Your task to perform on an android device: Open maps Image 0: 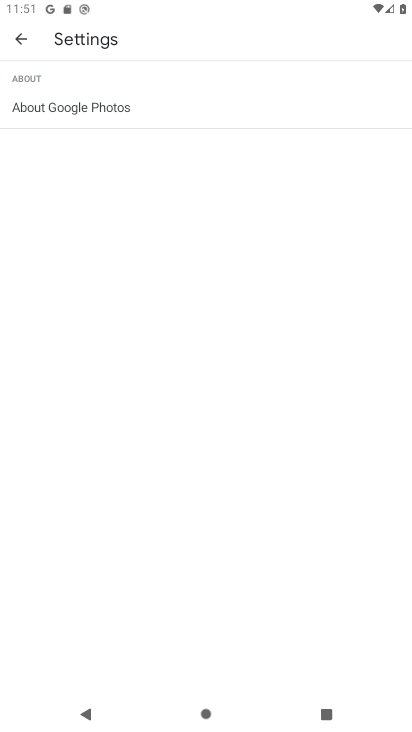
Step 0: press home button
Your task to perform on an android device: Open maps Image 1: 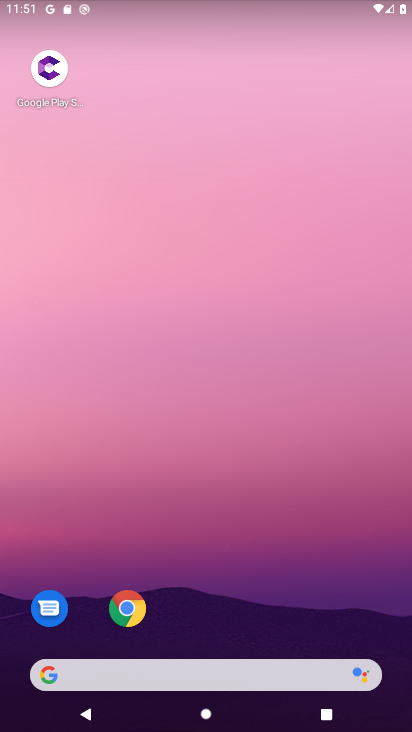
Step 1: drag from (205, 500) to (109, 0)
Your task to perform on an android device: Open maps Image 2: 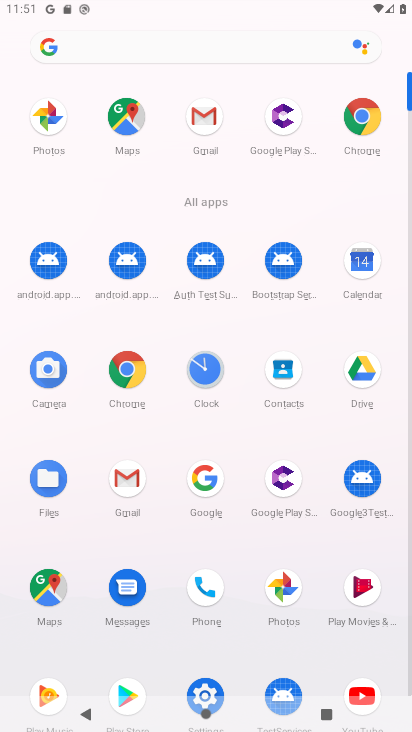
Step 2: click (122, 119)
Your task to perform on an android device: Open maps Image 3: 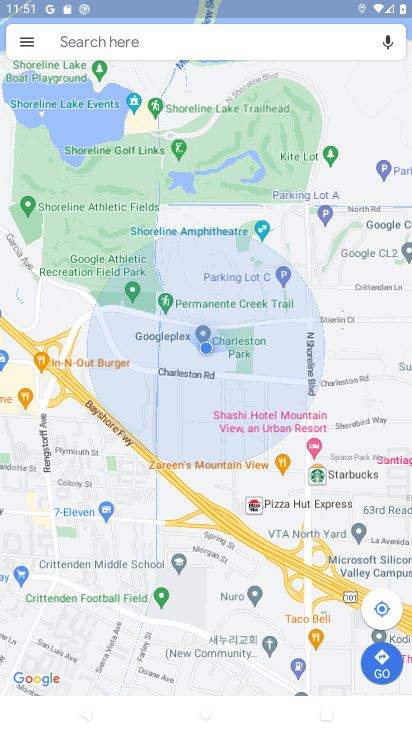
Step 3: task complete